Your task to perform on an android device: toggle notification dots Image 0: 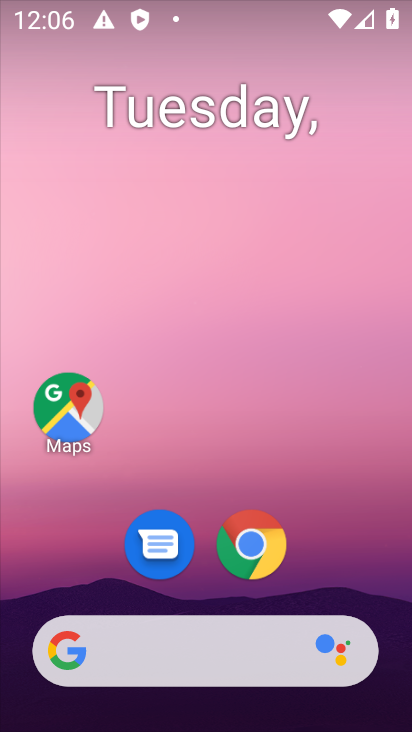
Step 0: drag from (321, 509) to (311, 31)
Your task to perform on an android device: toggle notification dots Image 1: 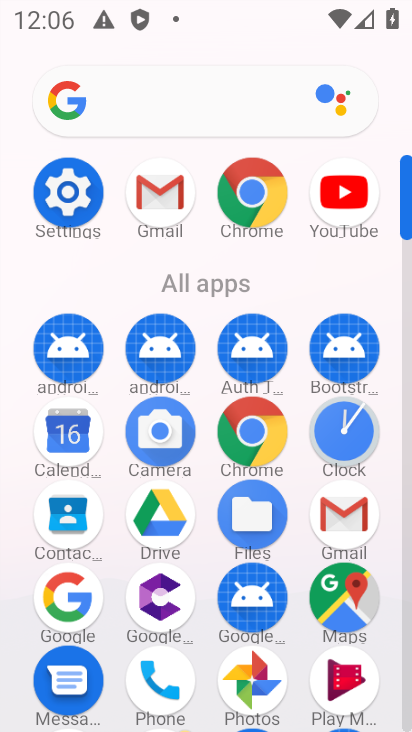
Step 1: click (87, 186)
Your task to perform on an android device: toggle notification dots Image 2: 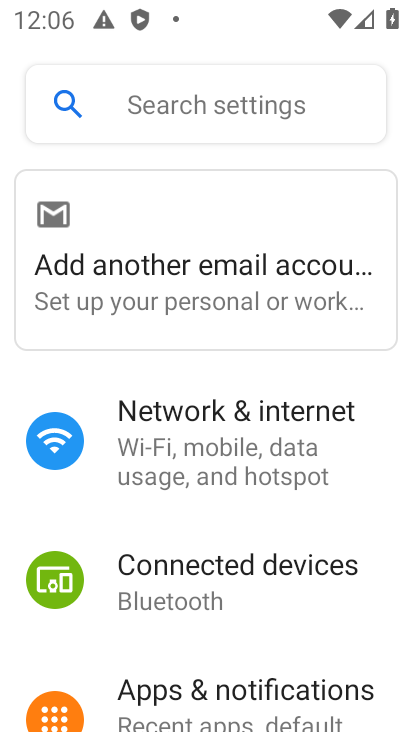
Step 2: click (242, 690)
Your task to perform on an android device: toggle notification dots Image 3: 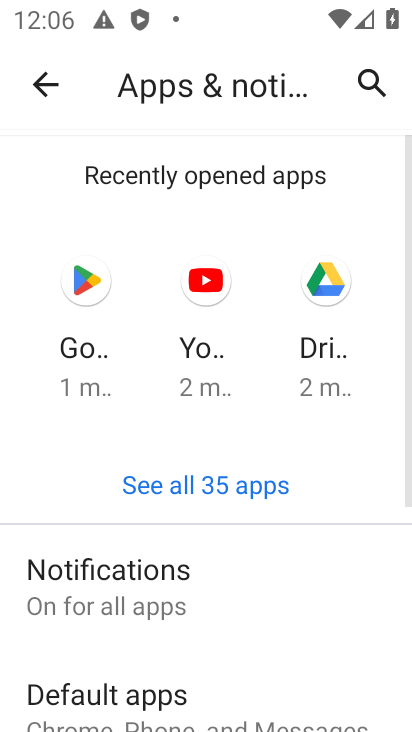
Step 3: click (133, 586)
Your task to perform on an android device: toggle notification dots Image 4: 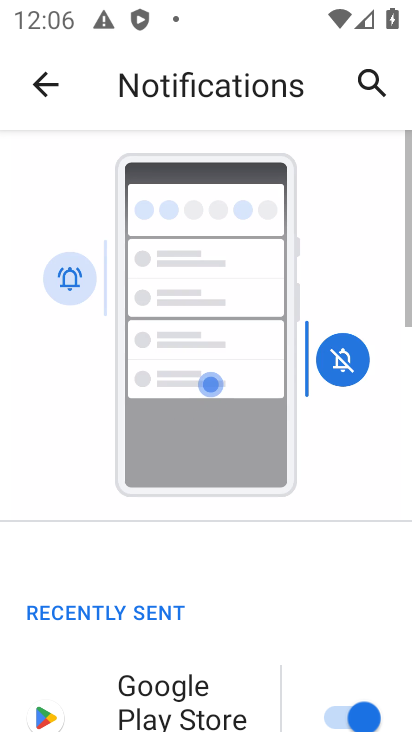
Step 4: drag from (207, 606) to (192, 31)
Your task to perform on an android device: toggle notification dots Image 5: 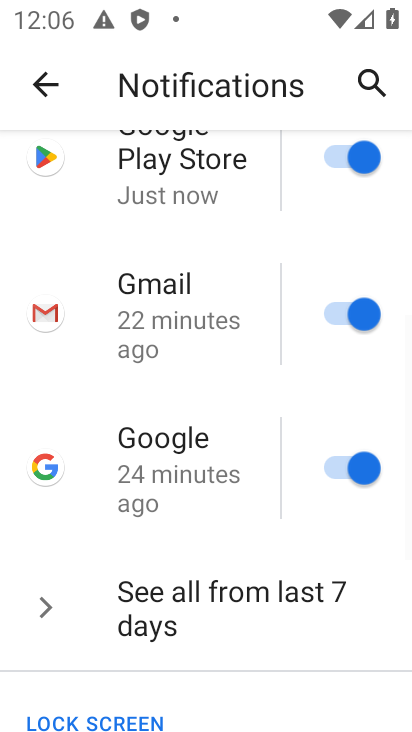
Step 5: drag from (218, 642) to (224, 128)
Your task to perform on an android device: toggle notification dots Image 6: 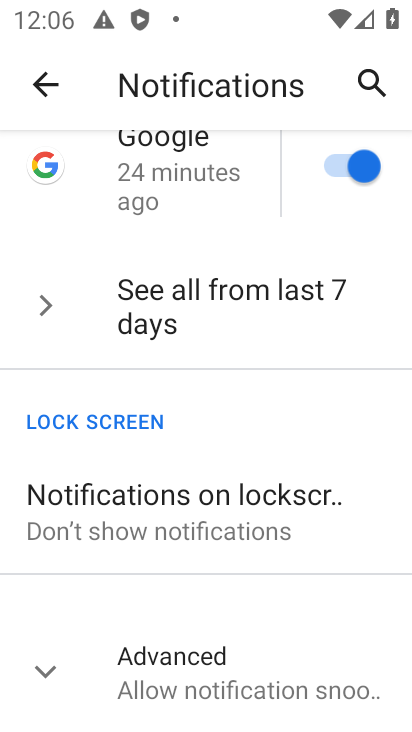
Step 6: click (171, 676)
Your task to perform on an android device: toggle notification dots Image 7: 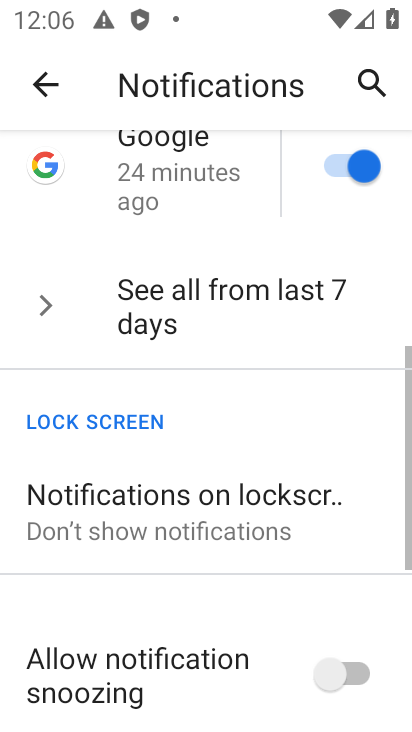
Step 7: drag from (233, 618) to (229, 159)
Your task to perform on an android device: toggle notification dots Image 8: 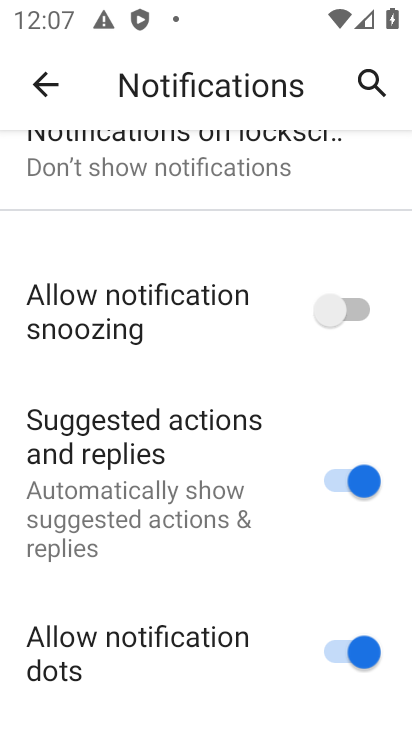
Step 8: click (347, 656)
Your task to perform on an android device: toggle notification dots Image 9: 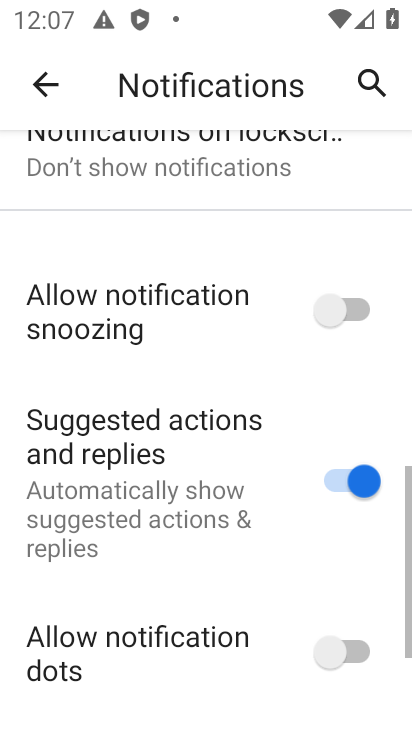
Step 9: task complete